Your task to perform on an android device: Go to Amazon Image 0: 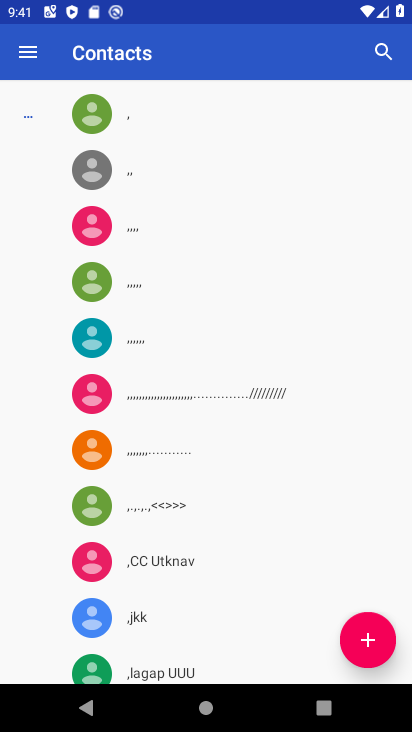
Step 0: press home button
Your task to perform on an android device: Go to Amazon Image 1: 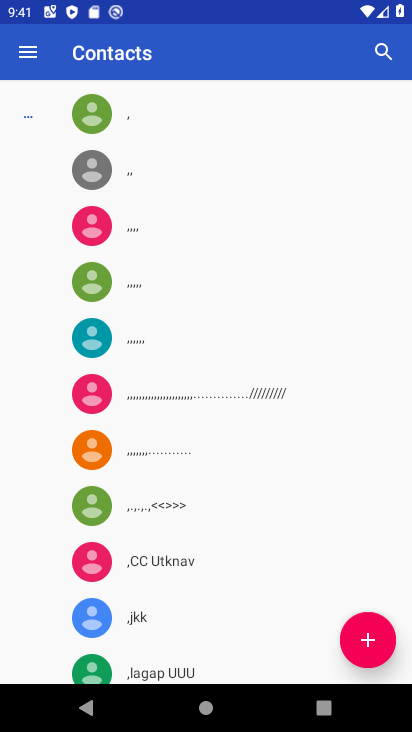
Step 1: press home button
Your task to perform on an android device: Go to Amazon Image 2: 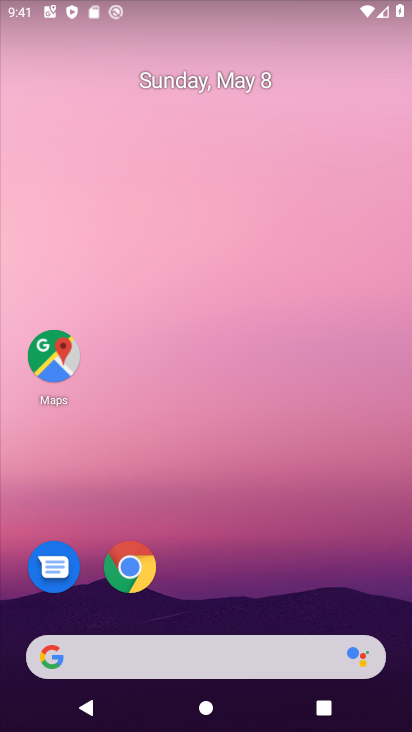
Step 2: drag from (329, 598) to (209, 70)
Your task to perform on an android device: Go to Amazon Image 3: 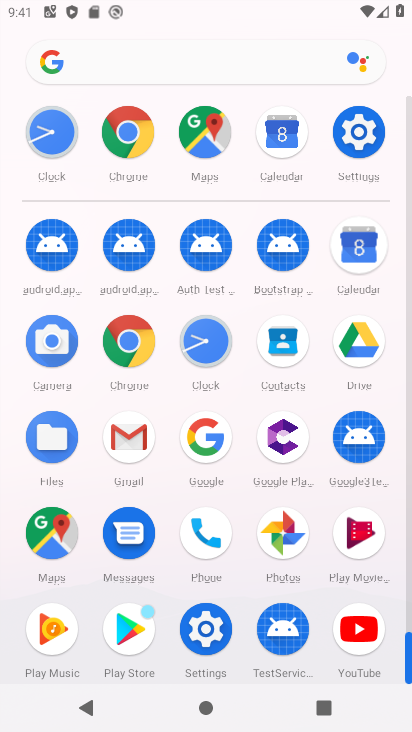
Step 3: press home button
Your task to perform on an android device: Go to Amazon Image 4: 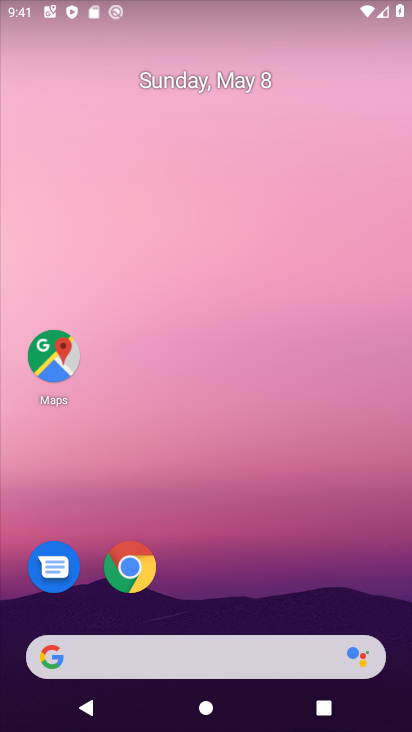
Step 4: drag from (275, 461) to (172, 0)
Your task to perform on an android device: Go to Amazon Image 5: 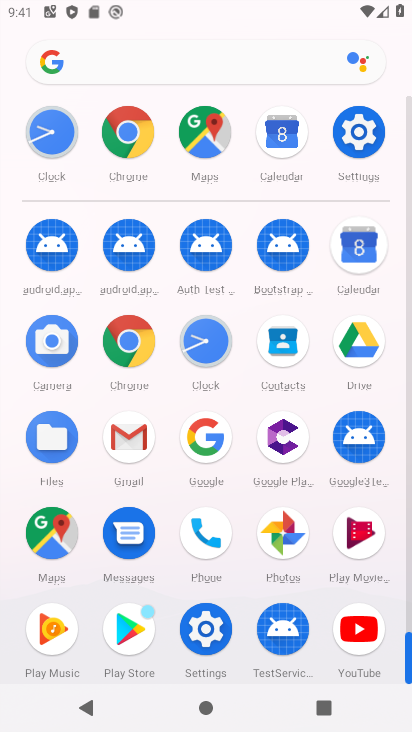
Step 5: click (131, 126)
Your task to perform on an android device: Go to Amazon Image 6: 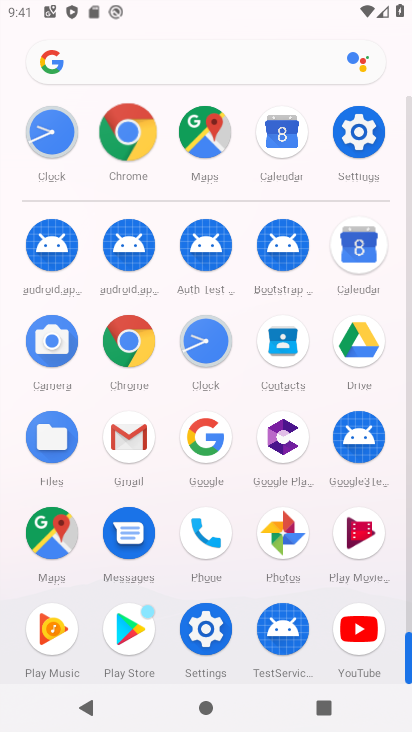
Step 6: click (131, 128)
Your task to perform on an android device: Go to Amazon Image 7: 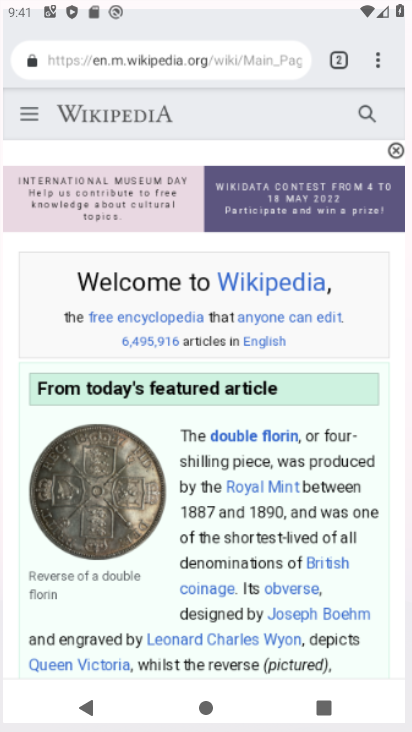
Step 7: click (131, 128)
Your task to perform on an android device: Go to Amazon Image 8: 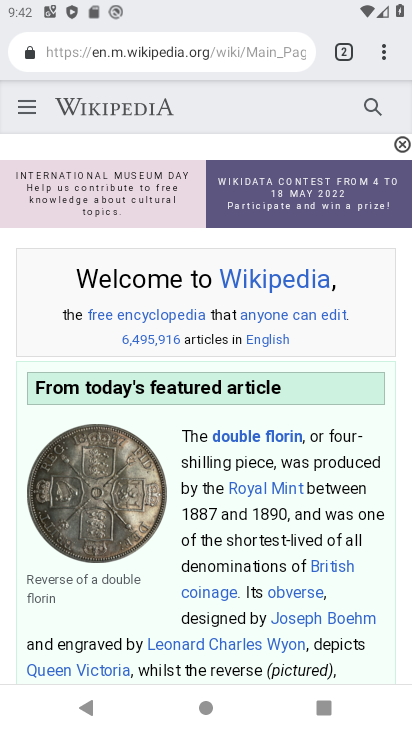
Step 8: click (378, 52)
Your task to perform on an android device: Go to Amazon Image 9: 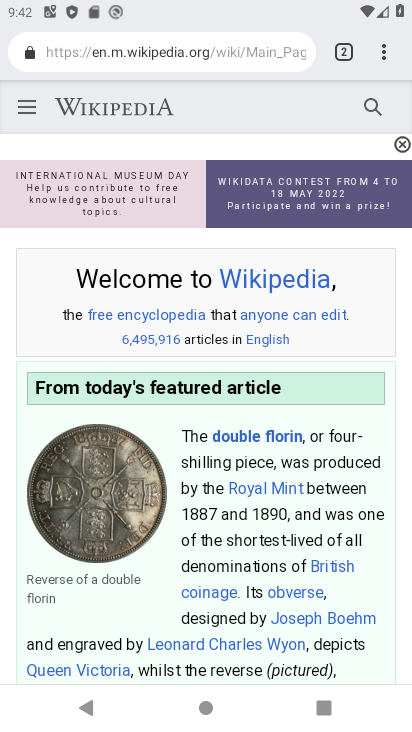
Step 9: drag from (381, 56) to (210, 82)
Your task to perform on an android device: Go to Amazon Image 10: 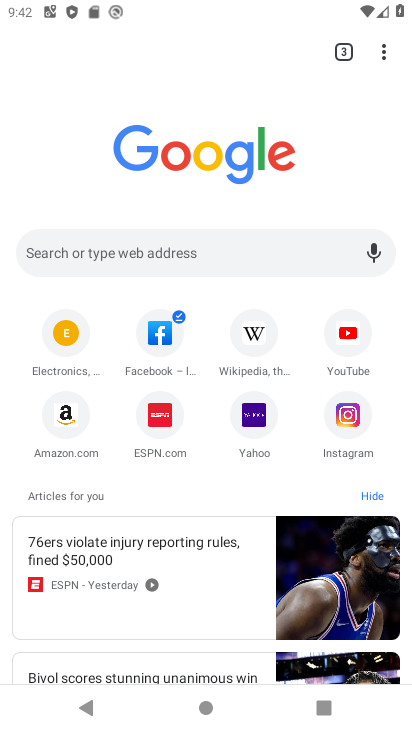
Step 10: click (67, 419)
Your task to perform on an android device: Go to Amazon Image 11: 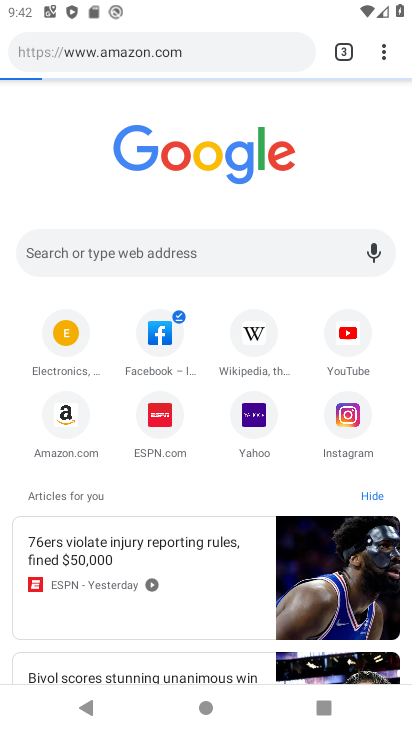
Step 11: click (65, 421)
Your task to perform on an android device: Go to Amazon Image 12: 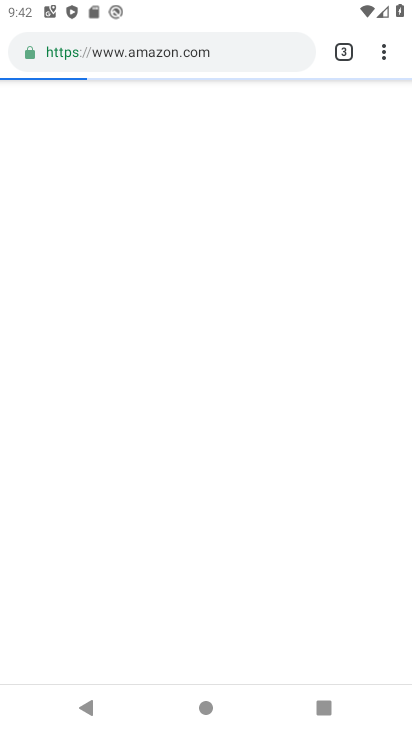
Step 12: click (66, 421)
Your task to perform on an android device: Go to Amazon Image 13: 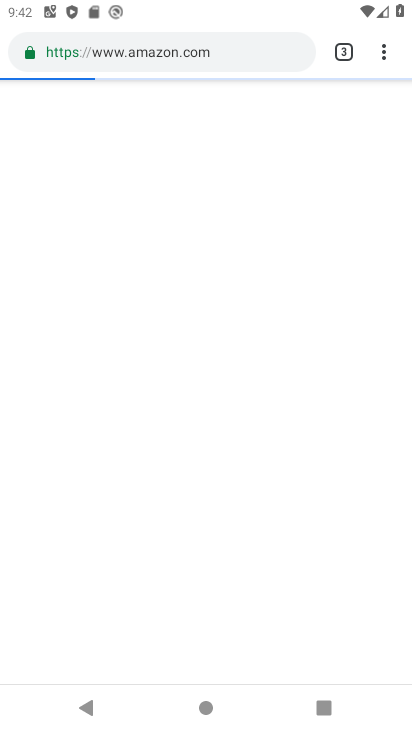
Step 13: click (67, 422)
Your task to perform on an android device: Go to Amazon Image 14: 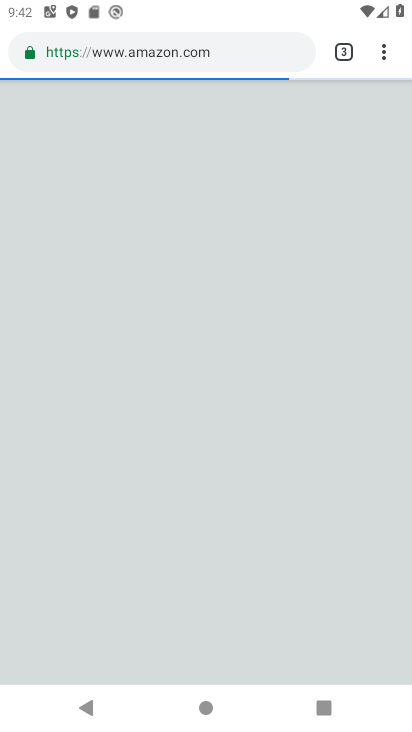
Step 14: click (70, 423)
Your task to perform on an android device: Go to Amazon Image 15: 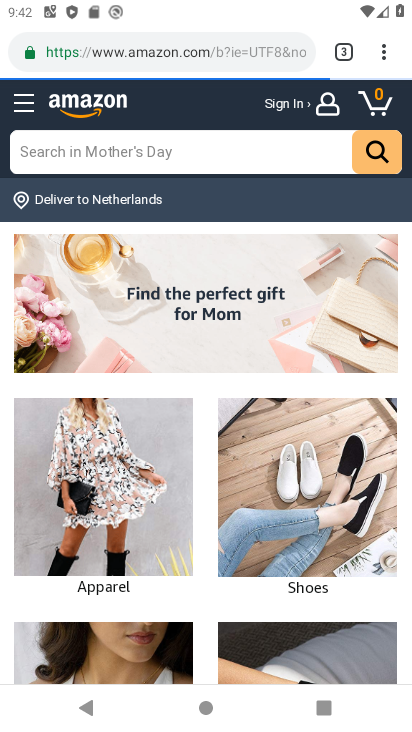
Step 15: task complete